Your task to perform on an android device: Open settings Image 0: 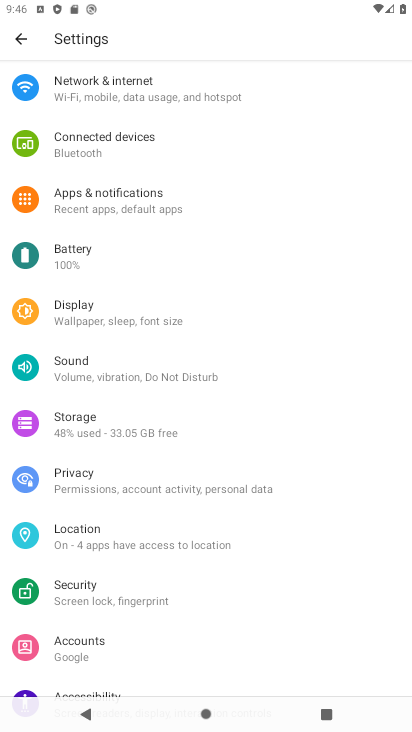
Step 0: task complete